Your task to perform on an android device: check battery use Image 0: 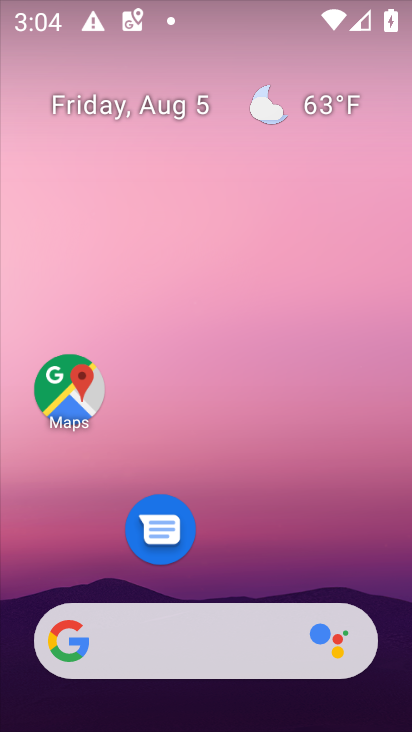
Step 0: drag from (197, 616) to (327, 95)
Your task to perform on an android device: check battery use Image 1: 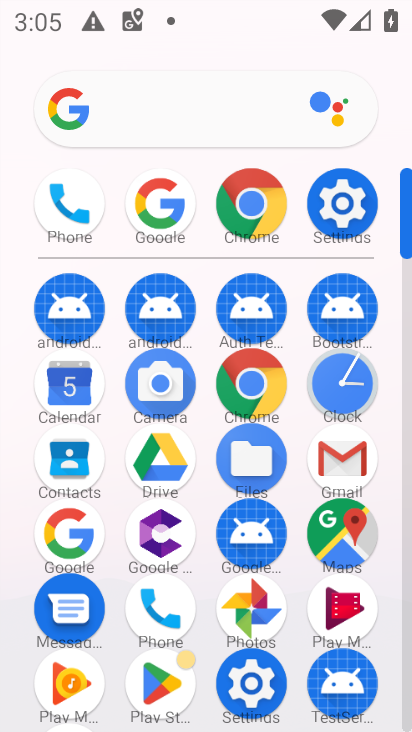
Step 1: click (280, 668)
Your task to perform on an android device: check battery use Image 2: 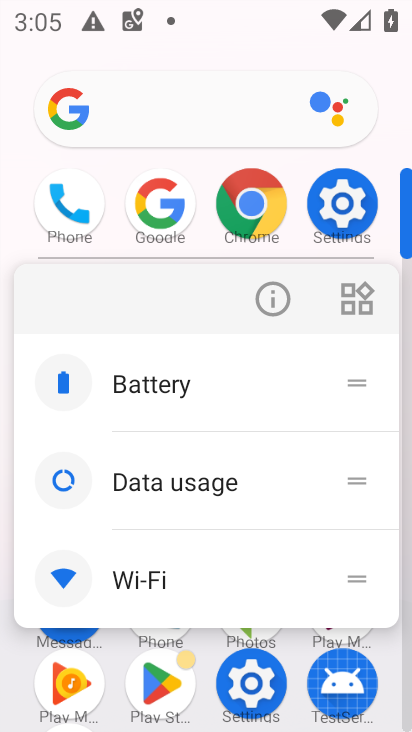
Step 2: click (280, 668)
Your task to perform on an android device: check battery use Image 3: 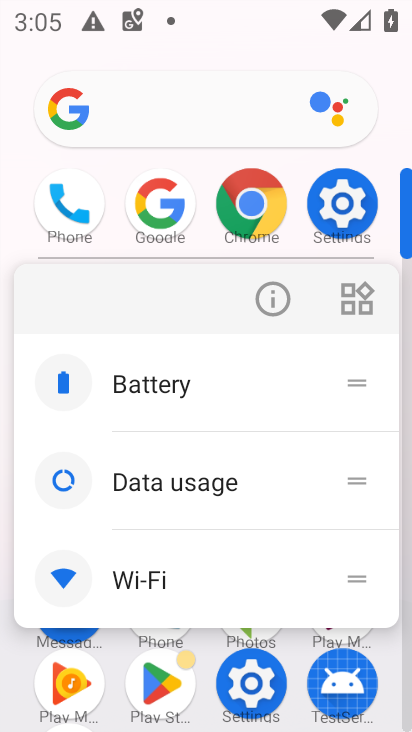
Step 3: click (264, 686)
Your task to perform on an android device: check battery use Image 4: 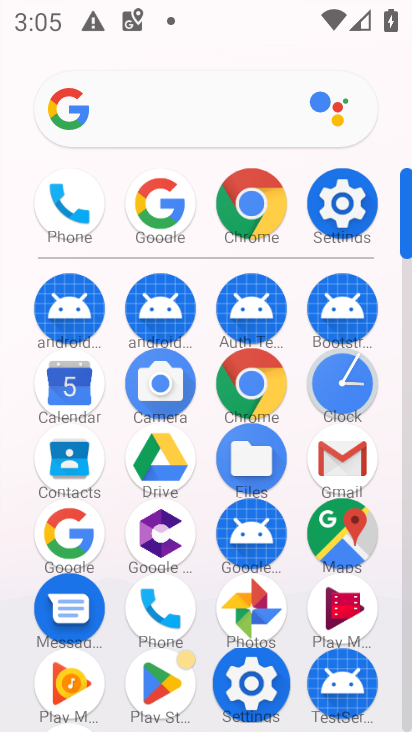
Step 4: click (264, 686)
Your task to perform on an android device: check battery use Image 5: 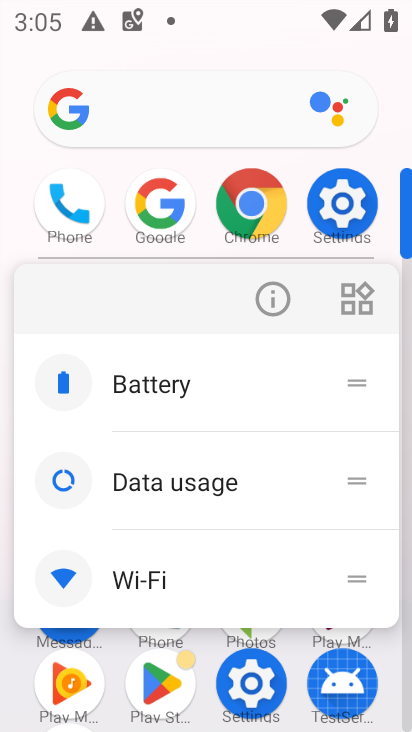
Step 5: click (264, 686)
Your task to perform on an android device: check battery use Image 6: 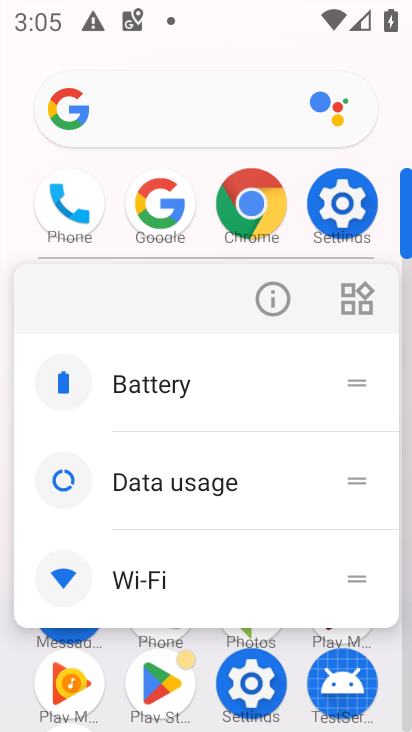
Step 6: click (264, 686)
Your task to perform on an android device: check battery use Image 7: 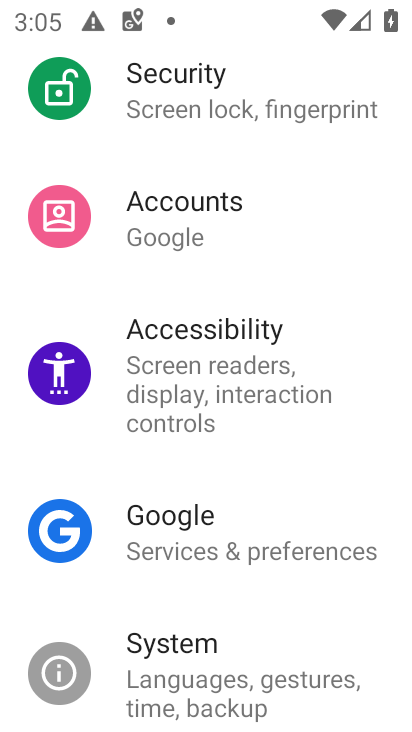
Step 7: drag from (322, 311) to (298, 705)
Your task to perform on an android device: check battery use Image 8: 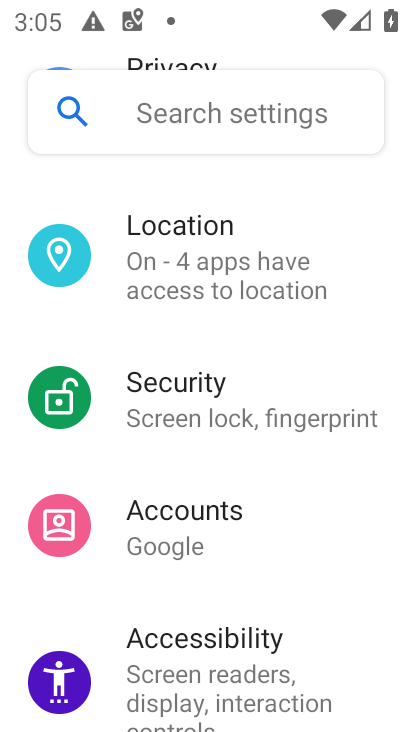
Step 8: drag from (278, 290) to (294, 651)
Your task to perform on an android device: check battery use Image 9: 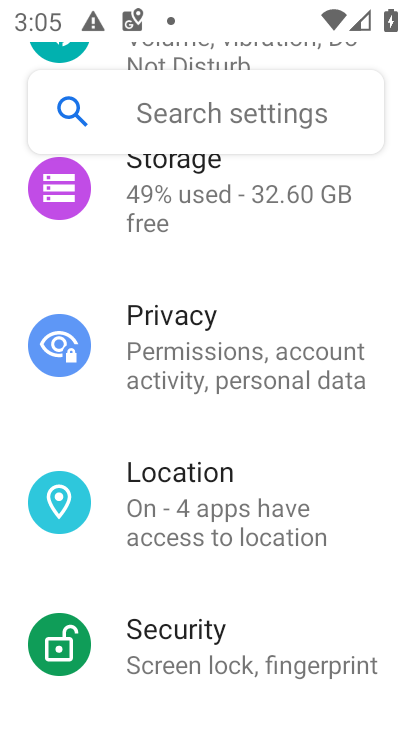
Step 9: drag from (320, 284) to (263, 696)
Your task to perform on an android device: check battery use Image 10: 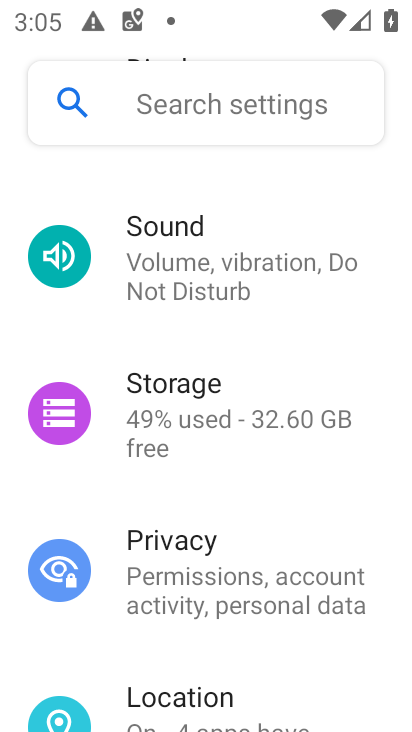
Step 10: drag from (325, 222) to (307, 730)
Your task to perform on an android device: check battery use Image 11: 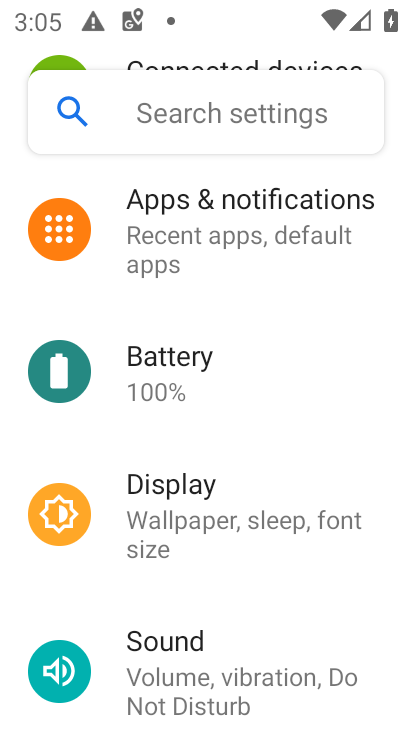
Step 11: click (300, 382)
Your task to perform on an android device: check battery use Image 12: 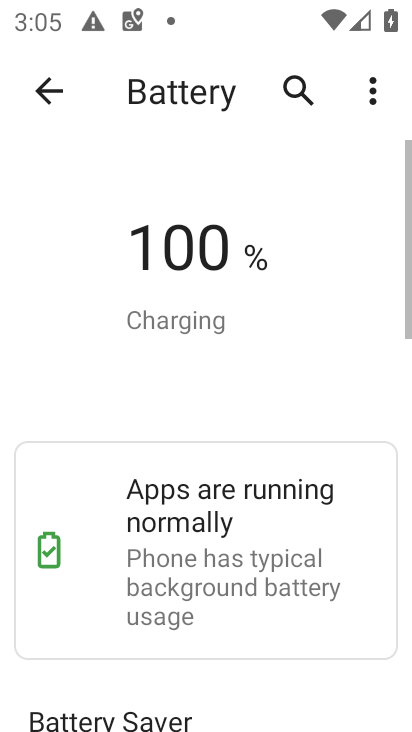
Step 12: click (370, 79)
Your task to perform on an android device: check battery use Image 13: 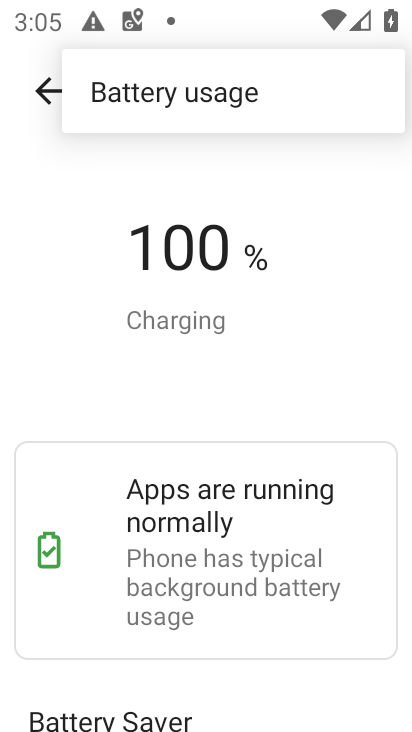
Step 13: click (304, 103)
Your task to perform on an android device: check battery use Image 14: 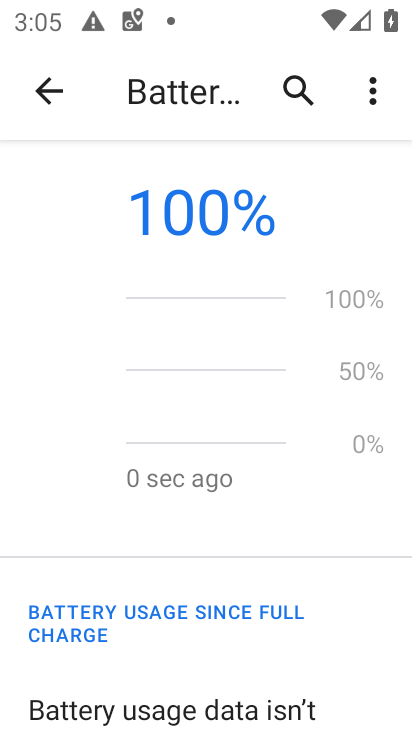
Step 14: task complete